Your task to perform on an android device: change the upload size in google photos Image 0: 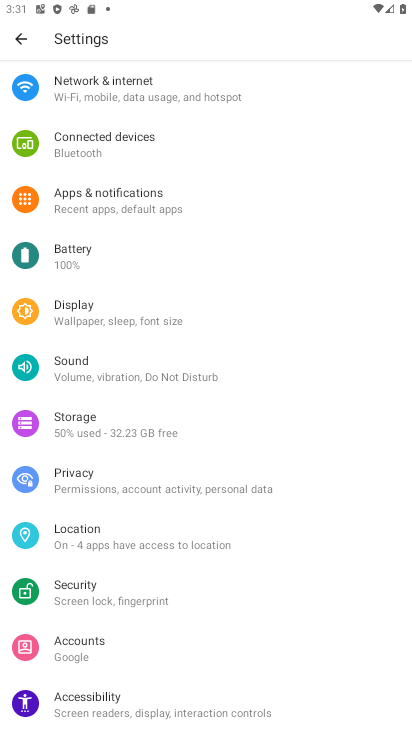
Step 0: press home button
Your task to perform on an android device: change the upload size in google photos Image 1: 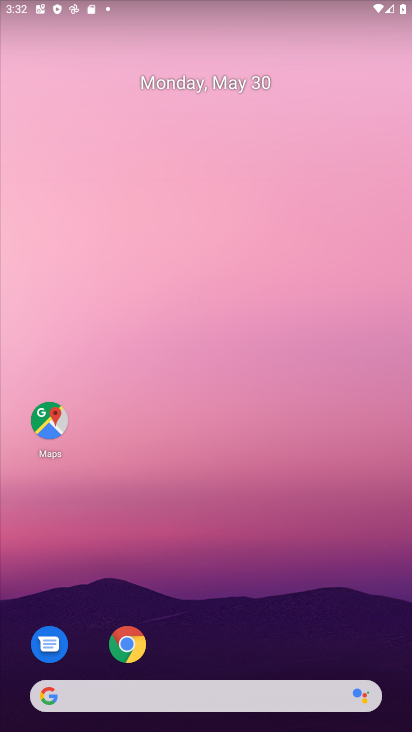
Step 1: drag from (259, 538) to (248, 53)
Your task to perform on an android device: change the upload size in google photos Image 2: 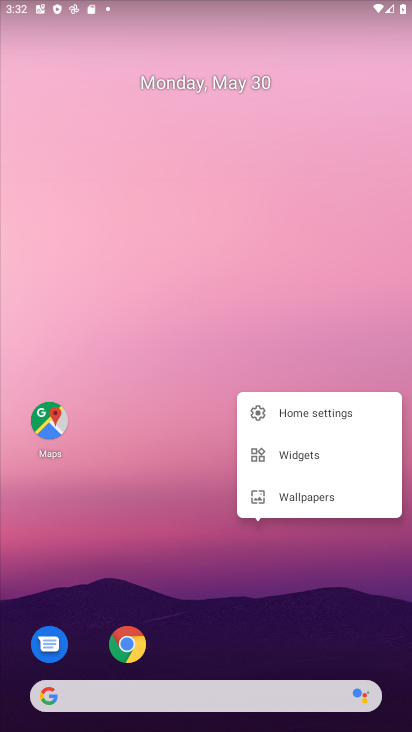
Step 2: click (200, 563)
Your task to perform on an android device: change the upload size in google photos Image 3: 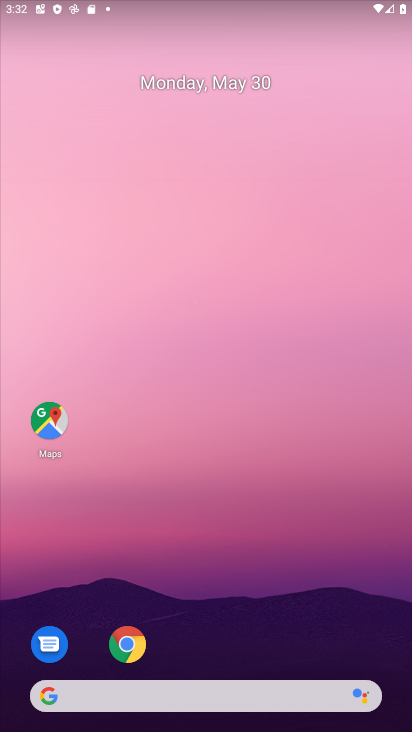
Step 3: task complete